Your task to perform on an android device: turn off notifications in google photos Image 0: 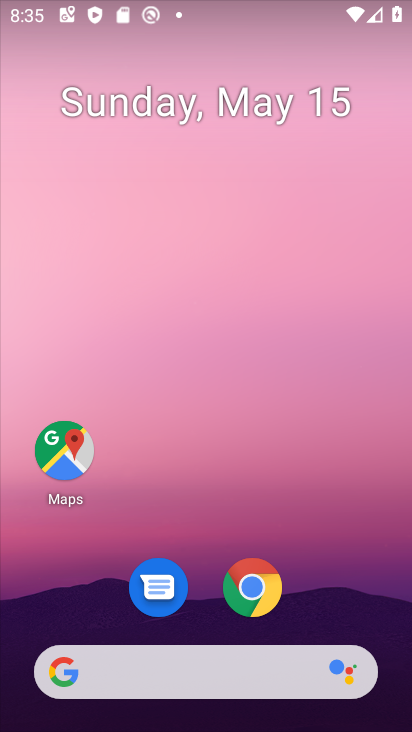
Step 0: drag from (398, 628) to (277, 66)
Your task to perform on an android device: turn off notifications in google photos Image 1: 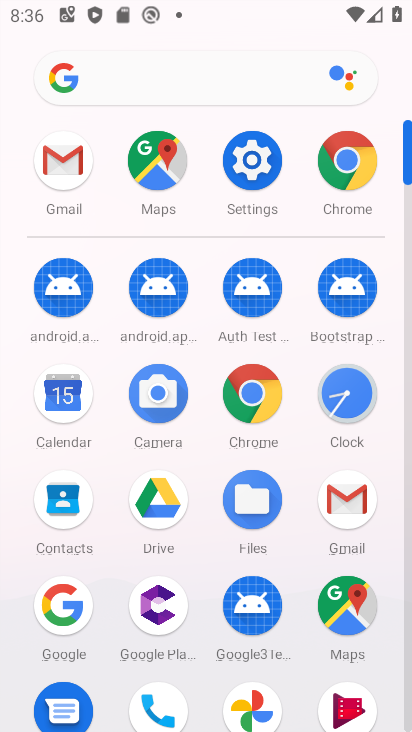
Step 1: click (256, 699)
Your task to perform on an android device: turn off notifications in google photos Image 2: 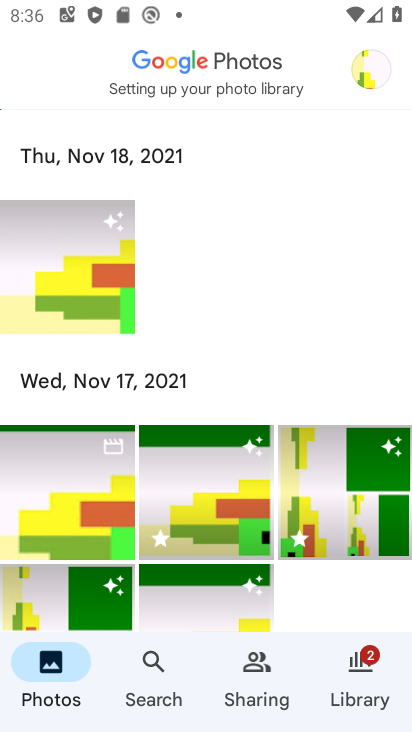
Step 2: click (377, 55)
Your task to perform on an android device: turn off notifications in google photos Image 3: 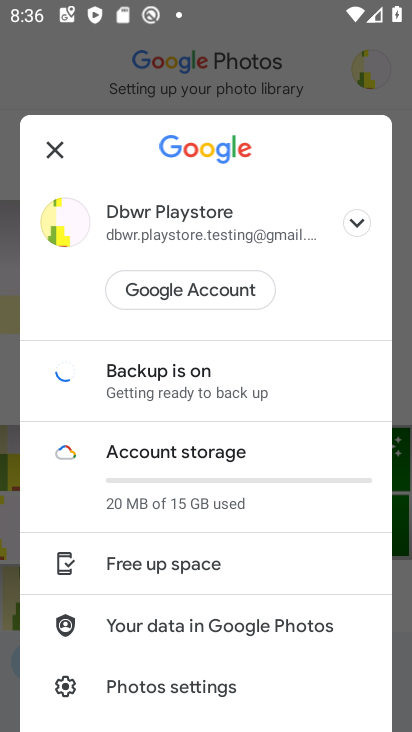
Step 3: click (170, 692)
Your task to perform on an android device: turn off notifications in google photos Image 4: 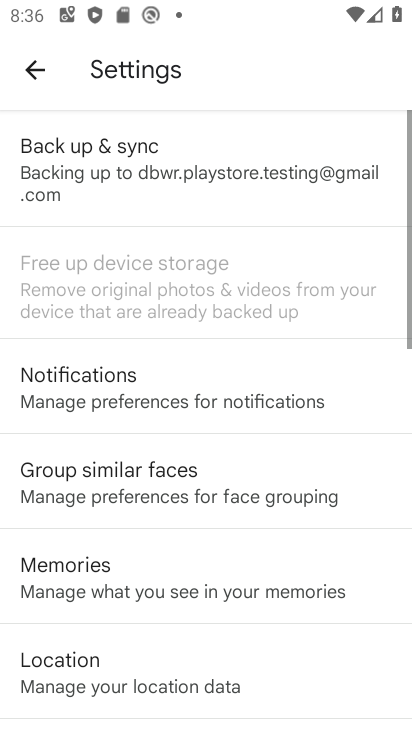
Step 4: click (154, 371)
Your task to perform on an android device: turn off notifications in google photos Image 5: 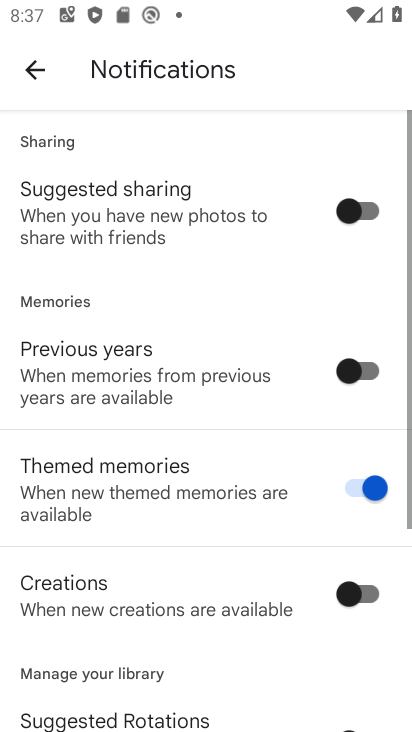
Step 5: task complete